Your task to perform on an android device: Clear the shopping cart on walmart.com. Search for apple airpods pro on walmart.com, select the first entry, add it to the cart, then select checkout. Image 0: 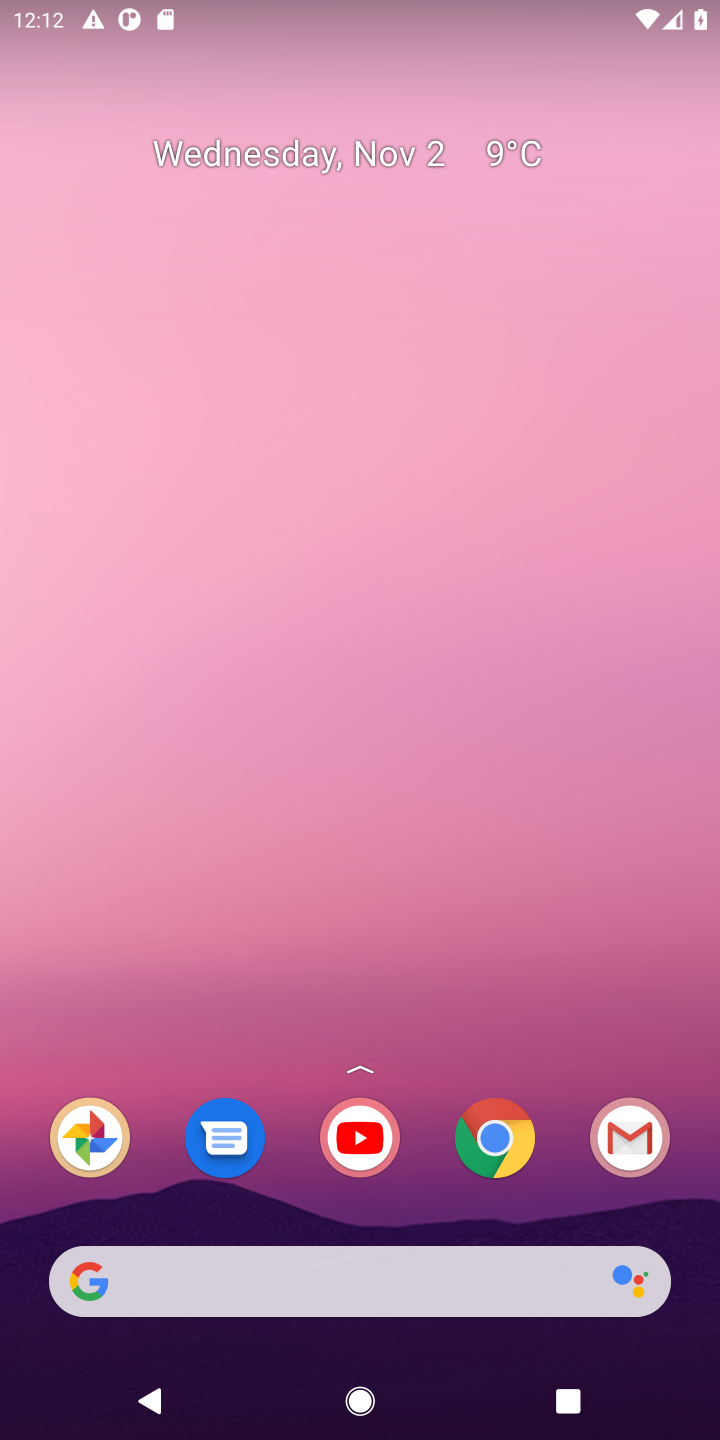
Step 0: click (315, 1275)
Your task to perform on an android device: Clear the shopping cart on walmart.com. Search for apple airpods pro on walmart.com, select the first entry, add it to the cart, then select checkout. Image 1: 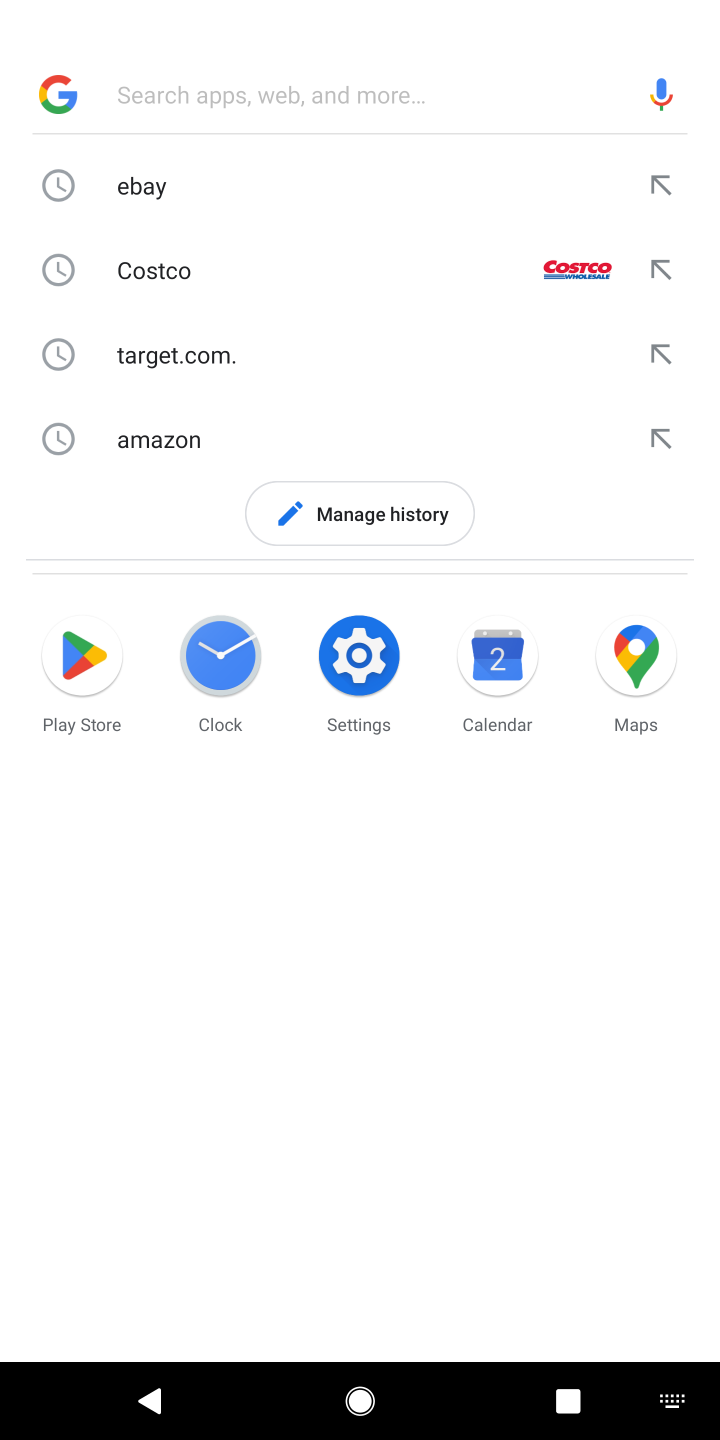
Step 1: type "walmart.com"
Your task to perform on an android device: Clear the shopping cart on walmart.com. Search for apple airpods pro on walmart.com, select the first entry, add it to the cart, then select checkout. Image 2: 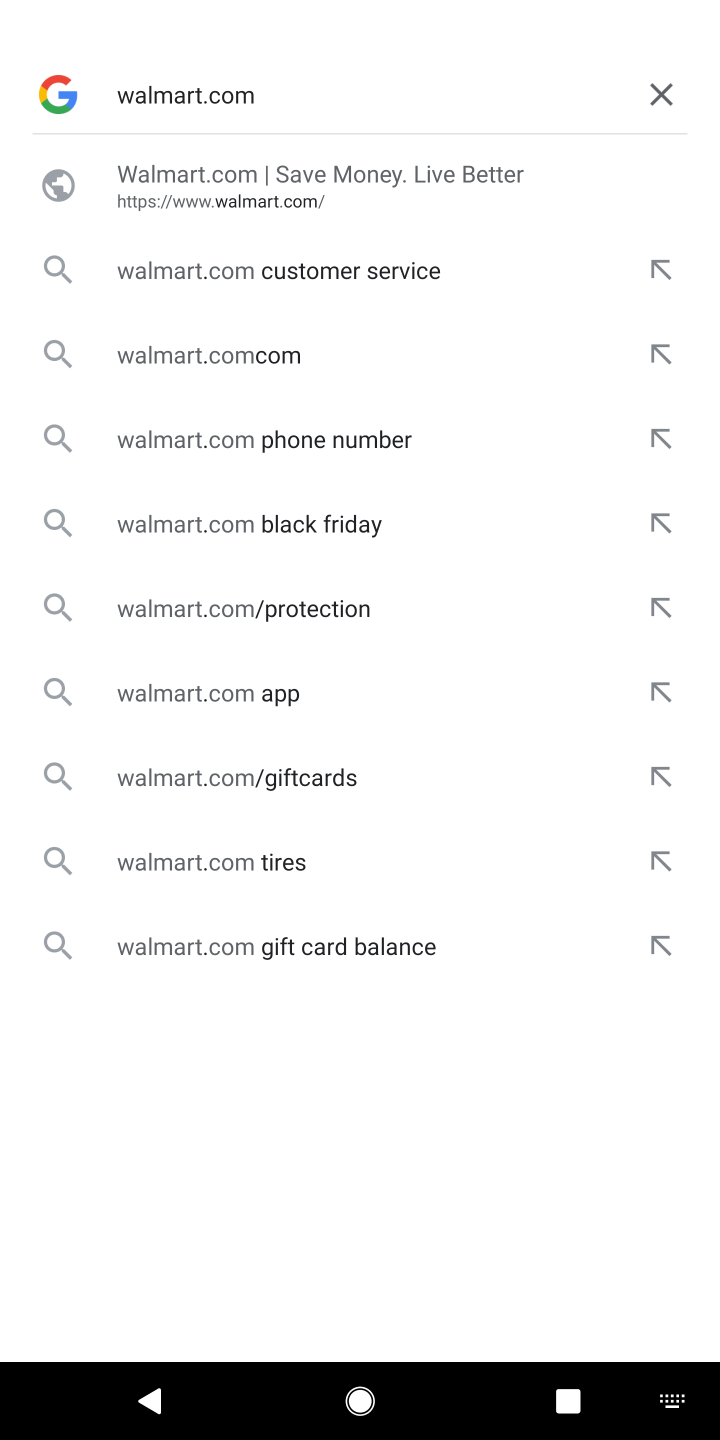
Step 2: type ""
Your task to perform on an android device: Clear the shopping cart on walmart.com. Search for apple airpods pro on walmart.com, select the first entry, add it to the cart, then select checkout. Image 3: 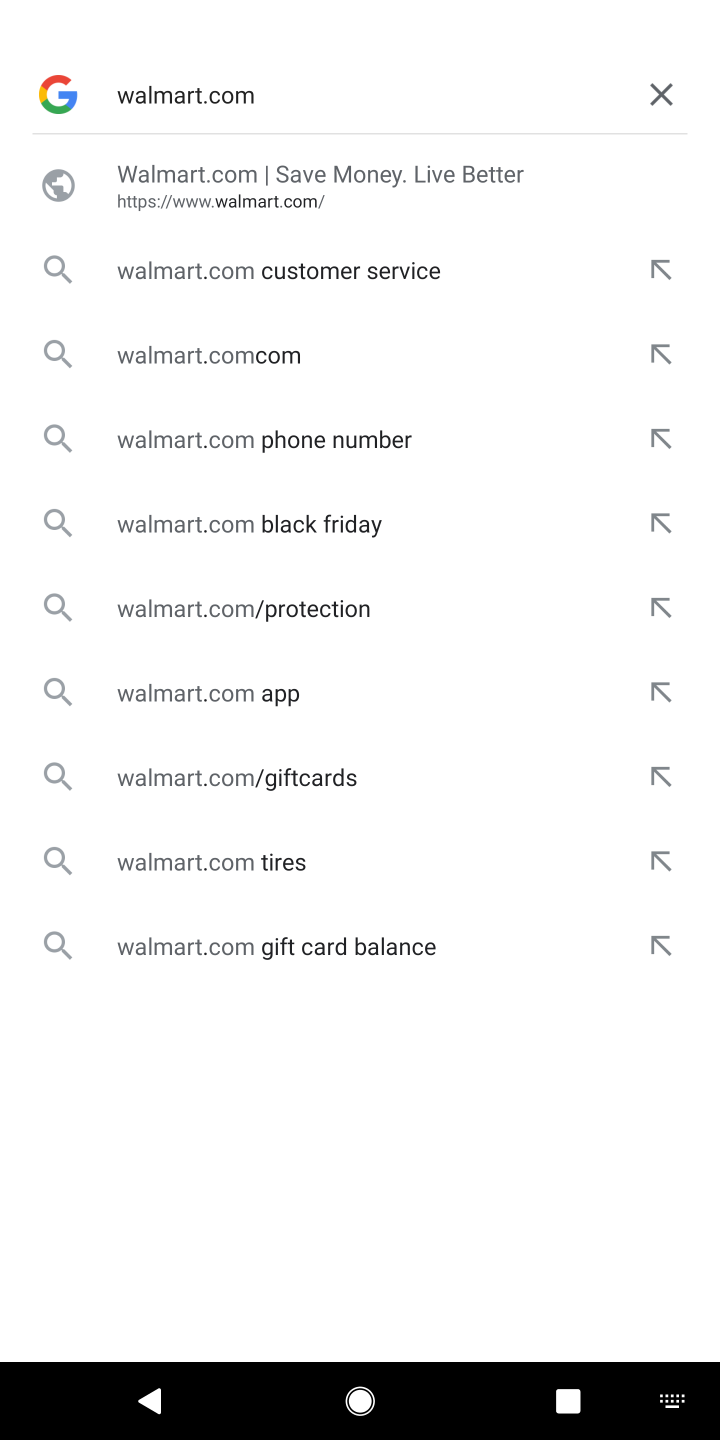
Step 3: click (189, 212)
Your task to perform on an android device: Clear the shopping cart on walmart.com. Search for apple airpods pro on walmart.com, select the first entry, add it to the cart, then select checkout. Image 4: 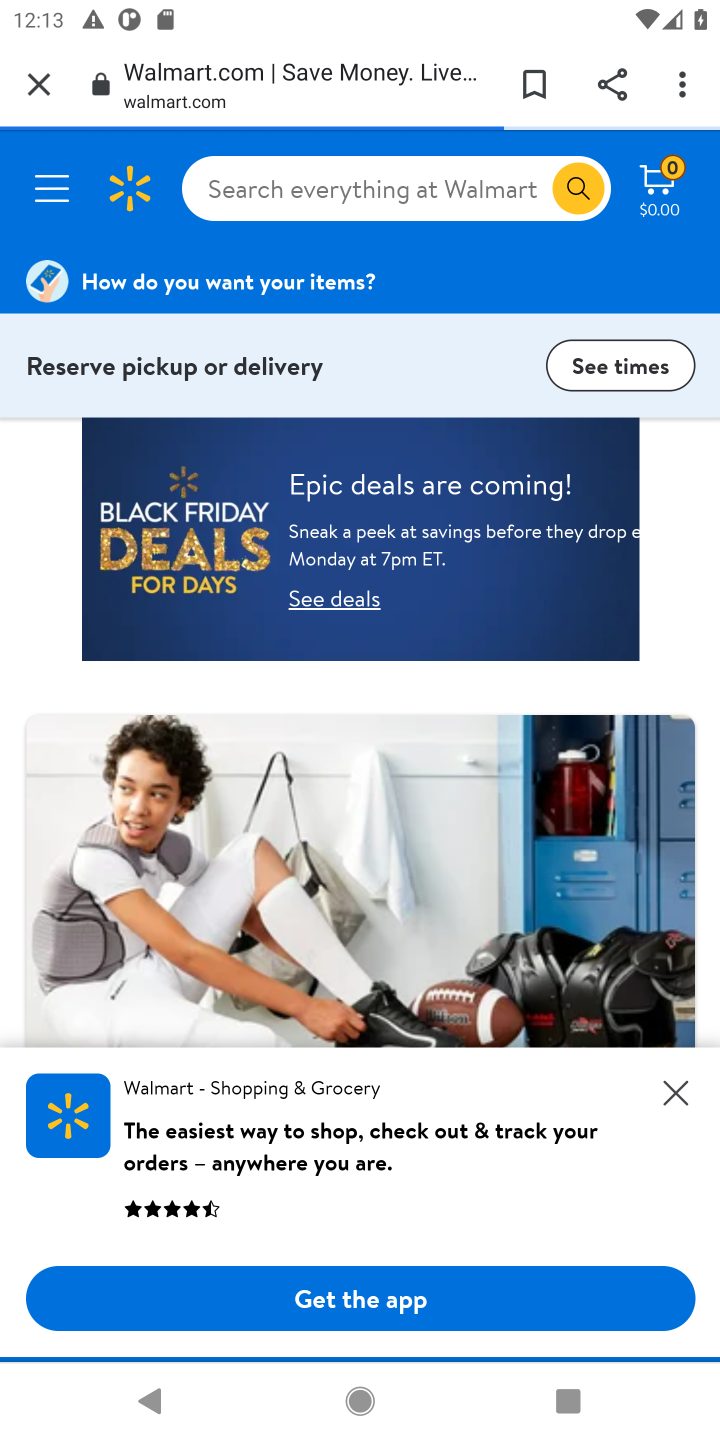
Step 4: click (343, 193)
Your task to perform on an android device: Clear the shopping cart on walmart.com. Search for apple airpods pro on walmart.com, select the first entry, add it to the cart, then select checkout. Image 5: 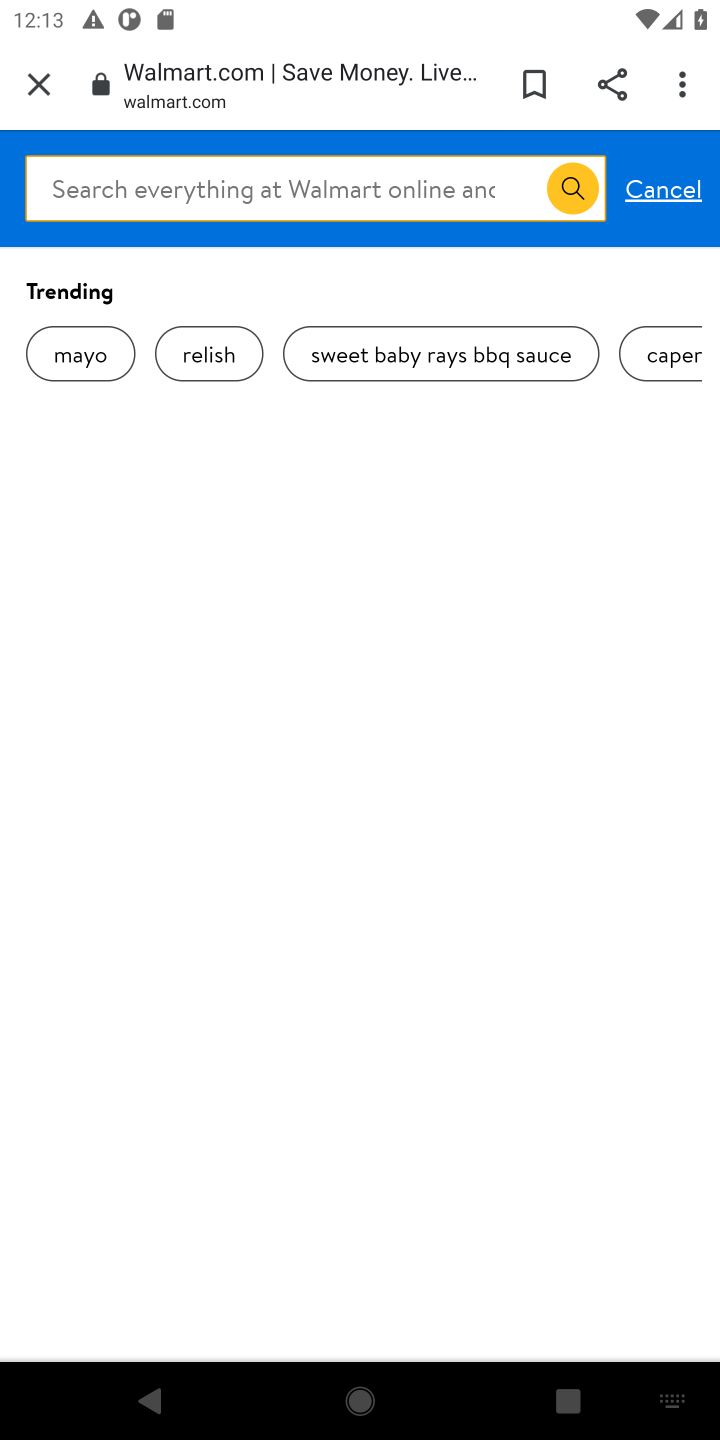
Step 5: type "apple airpods pro"
Your task to perform on an android device: Clear the shopping cart on walmart.com. Search for apple airpods pro on walmart.com, select the first entry, add it to the cart, then select checkout. Image 6: 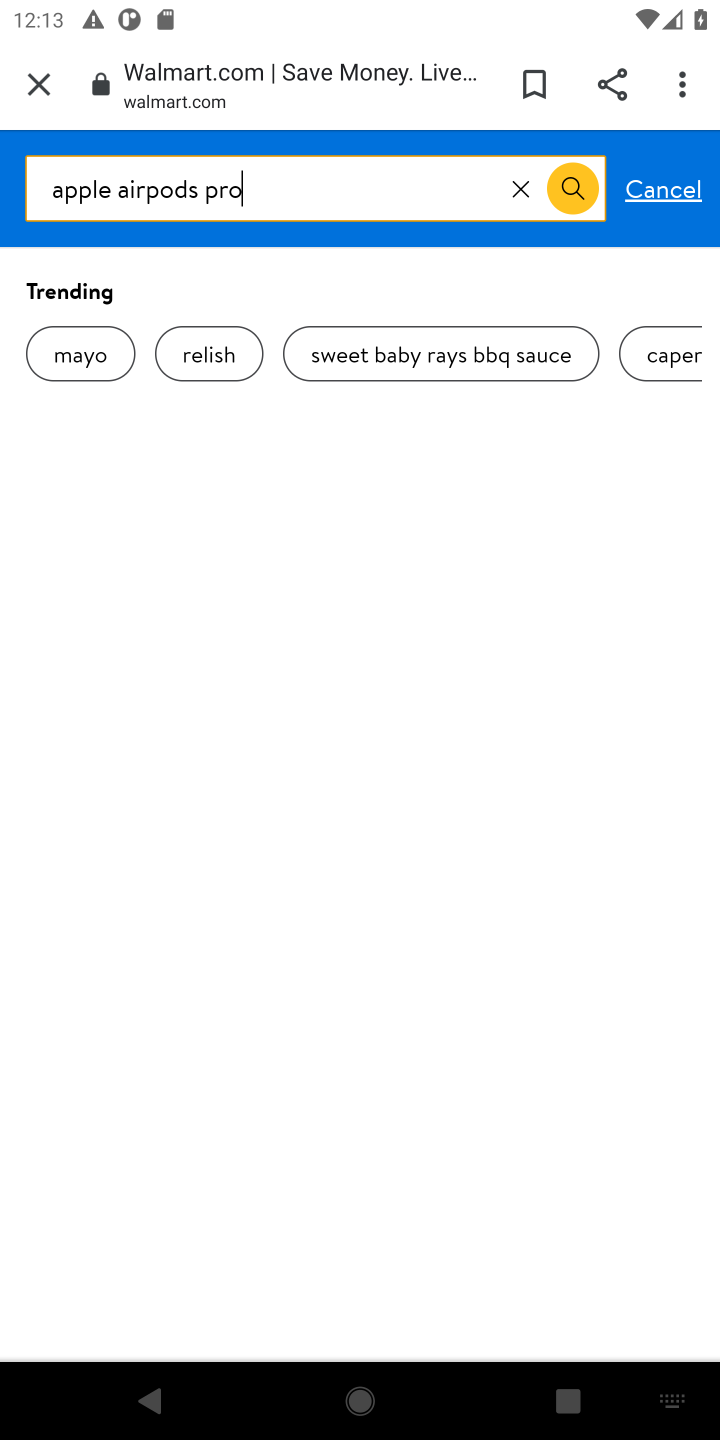
Step 6: type ""
Your task to perform on an android device: Clear the shopping cart on walmart.com. Search for apple airpods pro on walmart.com, select the first entry, add it to the cart, then select checkout. Image 7: 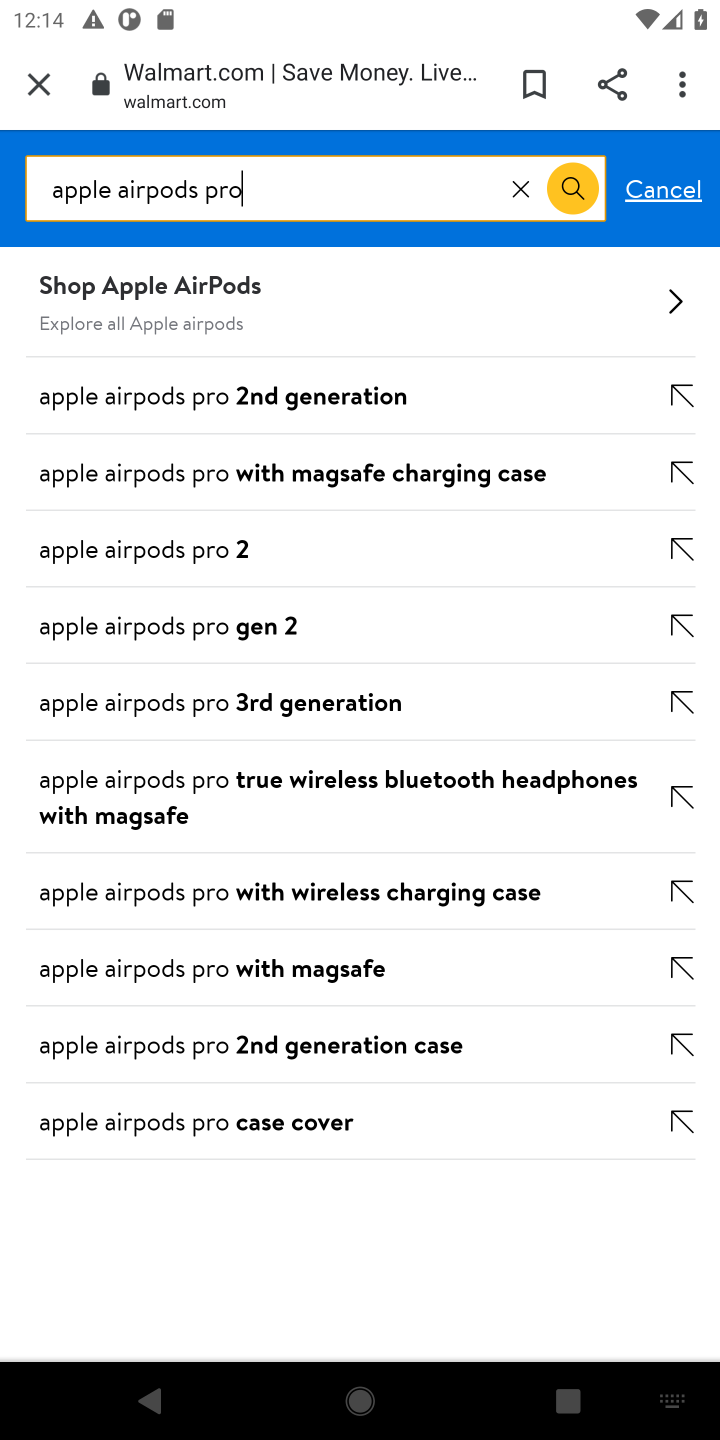
Step 7: click (567, 181)
Your task to perform on an android device: Clear the shopping cart on walmart.com. Search for apple airpods pro on walmart.com, select the first entry, add it to the cart, then select checkout. Image 8: 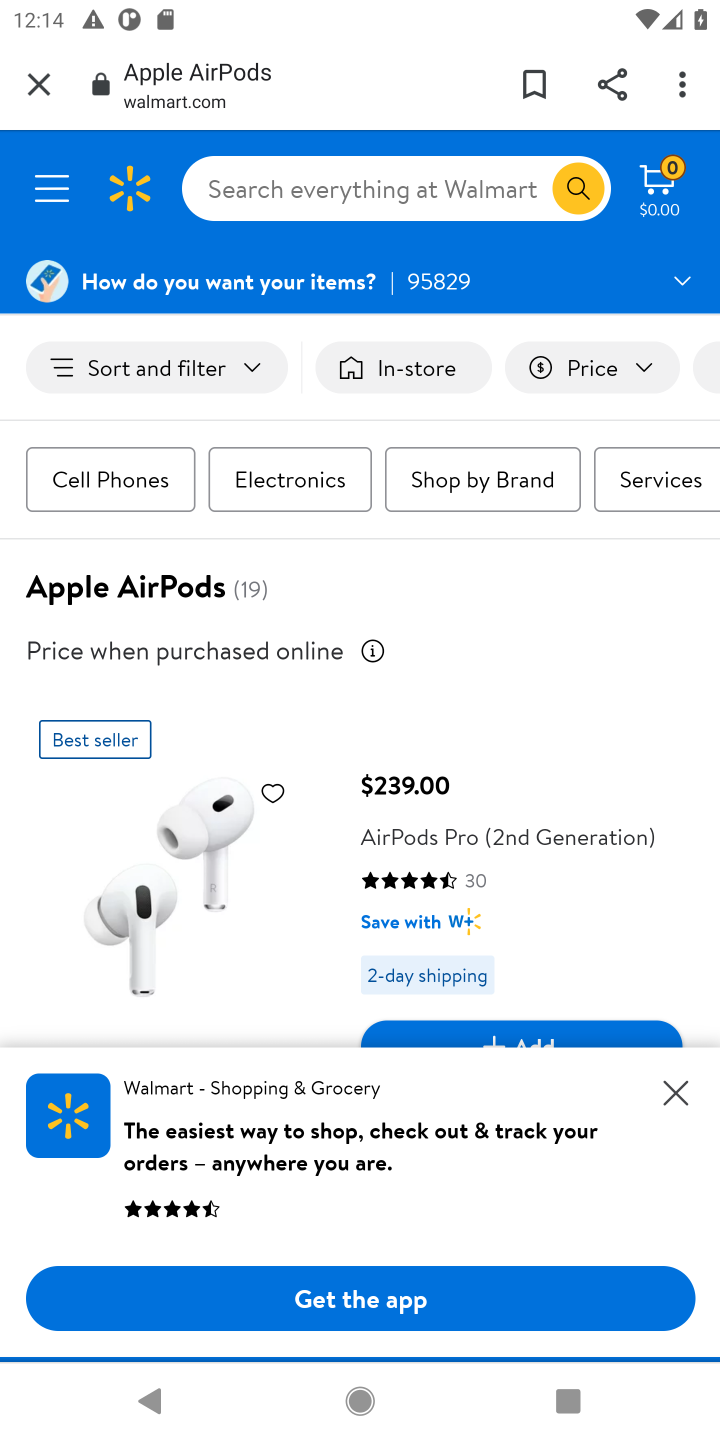
Step 8: drag from (549, 1000) to (533, 658)
Your task to perform on an android device: Clear the shopping cart on walmart.com. Search for apple airpods pro on walmart.com, select the first entry, add it to the cart, then select checkout. Image 9: 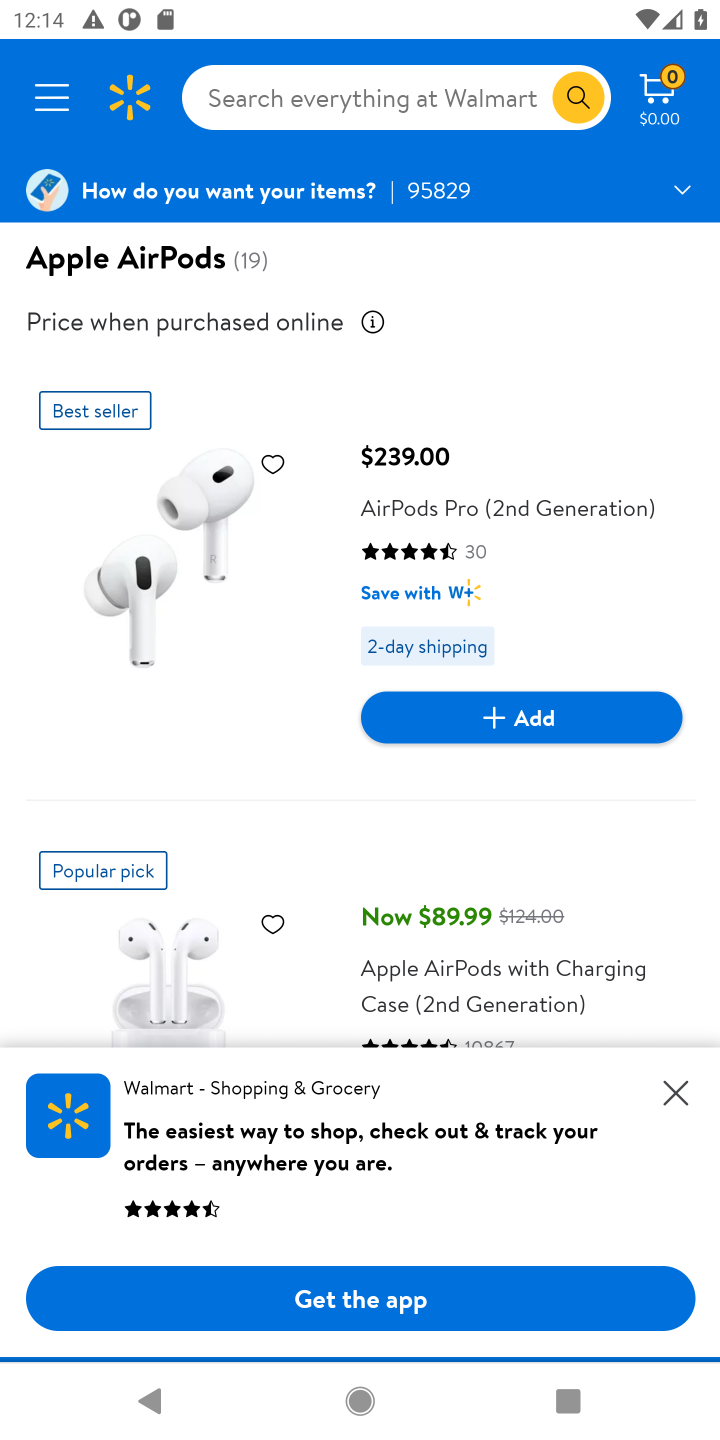
Step 9: click (578, 711)
Your task to perform on an android device: Clear the shopping cart on walmart.com. Search for apple airpods pro on walmart.com, select the first entry, add it to the cart, then select checkout. Image 10: 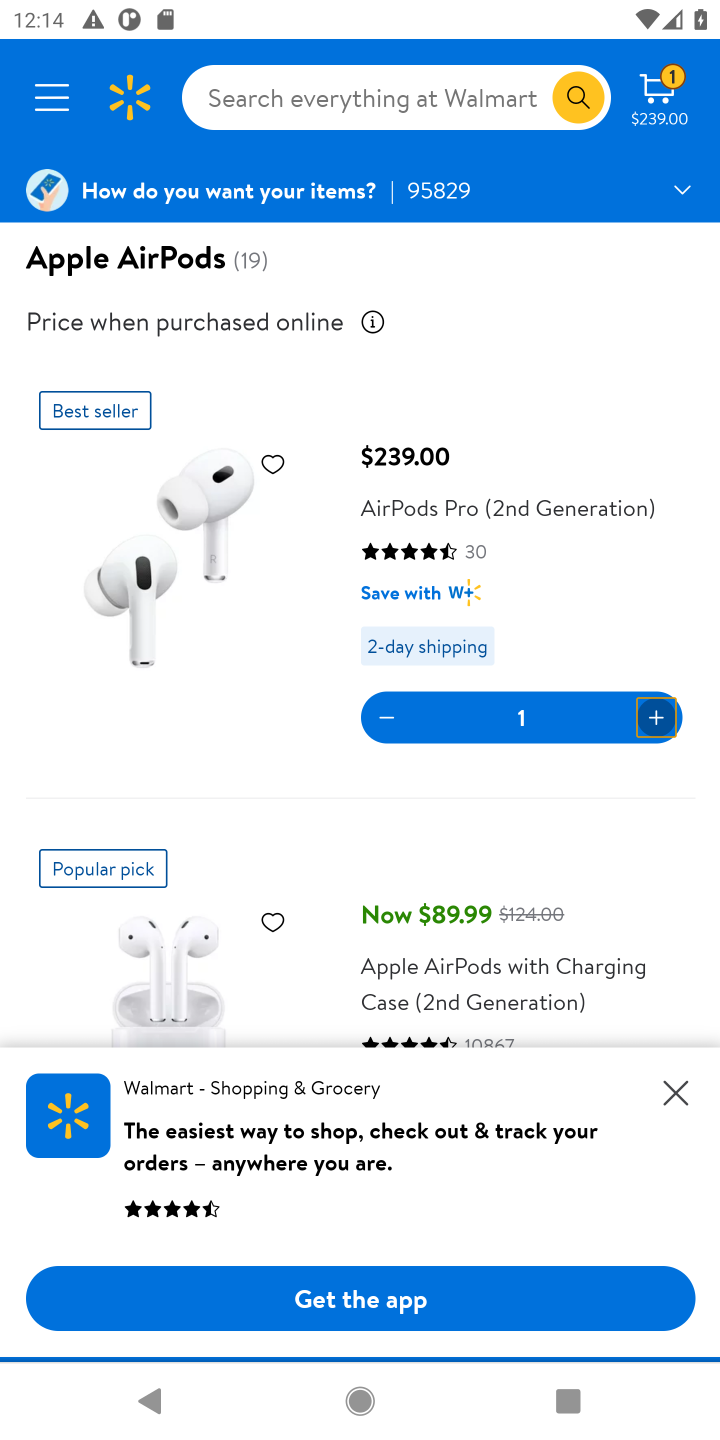
Step 10: task complete